Your task to perform on an android device: create a new album in the google photos Image 0: 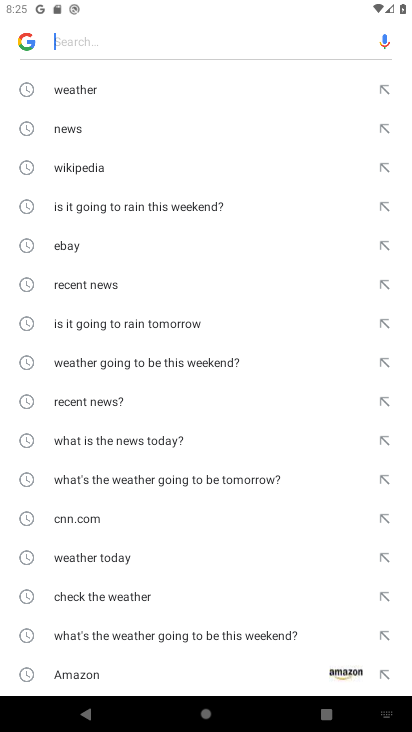
Step 0: press home button
Your task to perform on an android device: create a new album in the google photos Image 1: 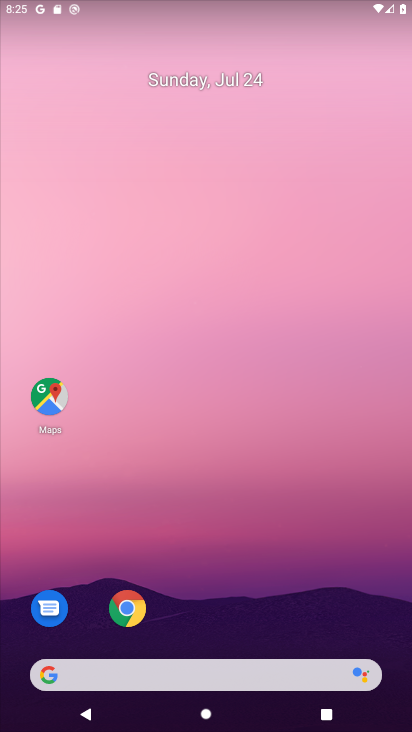
Step 1: drag from (203, 636) to (246, 85)
Your task to perform on an android device: create a new album in the google photos Image 2: 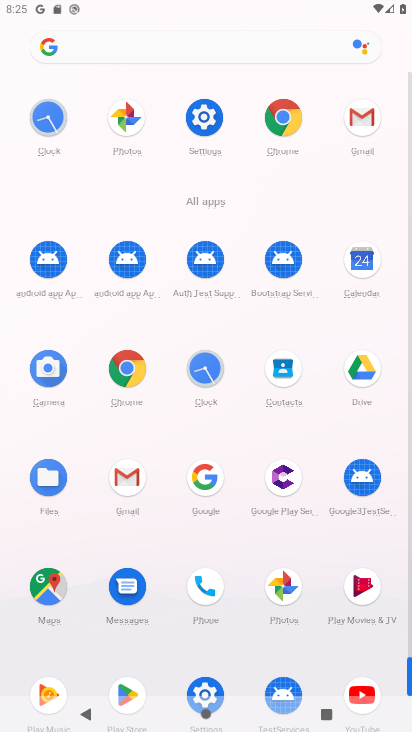
Step 2: click (132, 135)
Your task to perform on an android device: create a new album in the google photos Image 3: 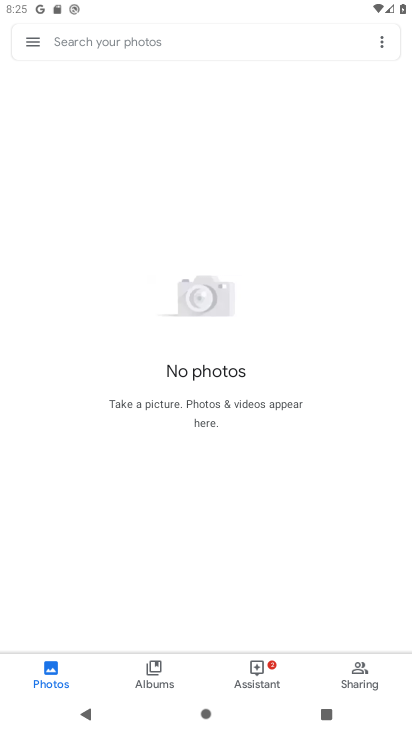
Step 3: task complete